Your task to perform on an android device: change timer sound Image 0: 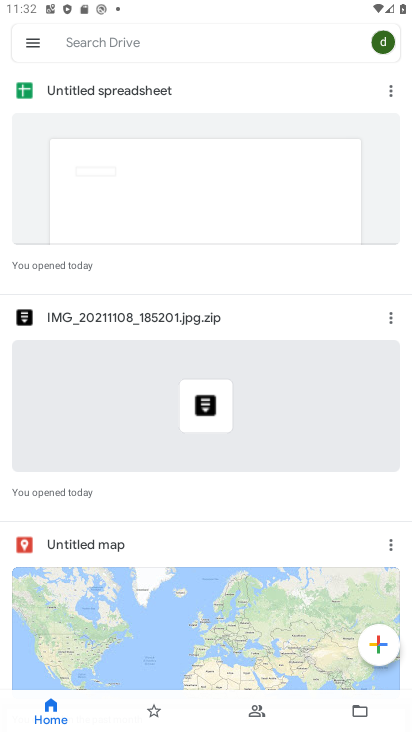
Step 0: press home button
Your task to perform on an android device: change timer sound Image 1: 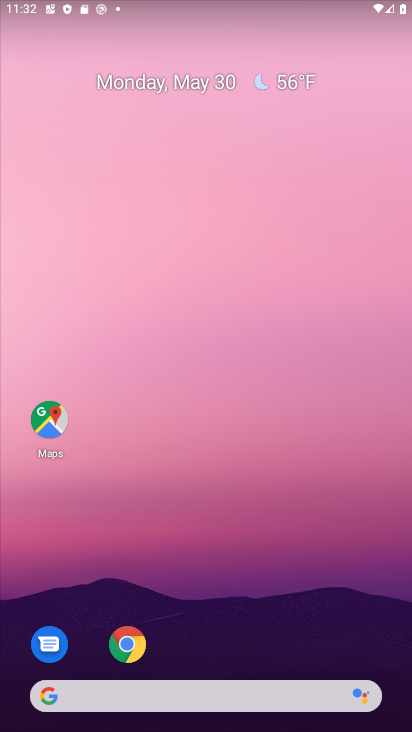
Step 1: drag from (205, 671) to (207, 2)
Your task to perform on an android device: change timer sound Image 2: 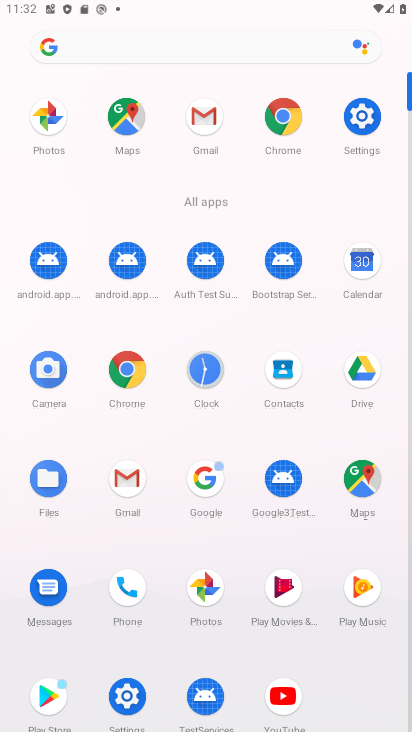
Step 2: click (204, 394)
Your task to perform on an android device: change timer sound Image 3: 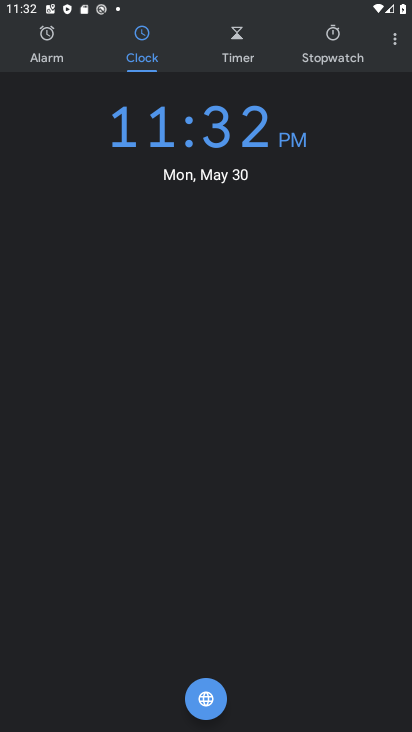
Step 3: click (393, 48)
Your task to perform on an android device: change timer sound Image 4: 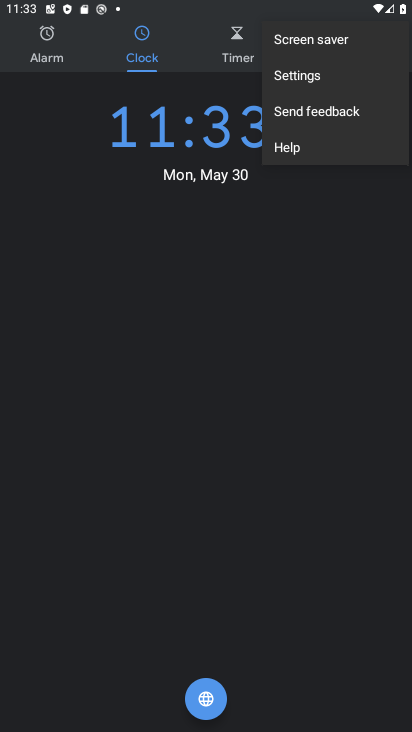
Step 4: click (316, 80)
Your task to perform on an android device: change timer sound Image 5: 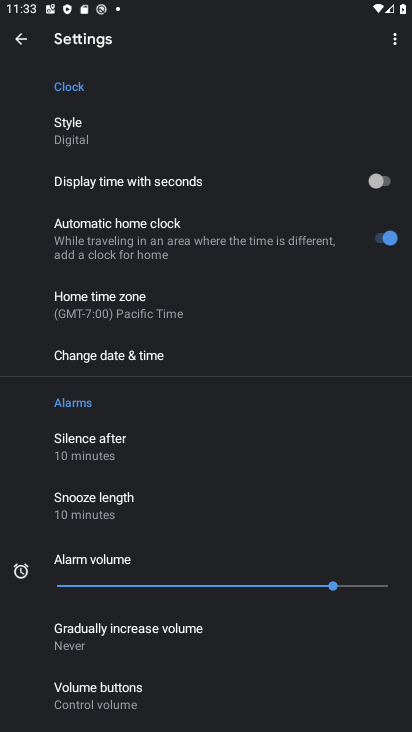
Step 5: drag from (123, 627) to (178, 322)
Your task to perform on an android device: change timer sound Image 6: 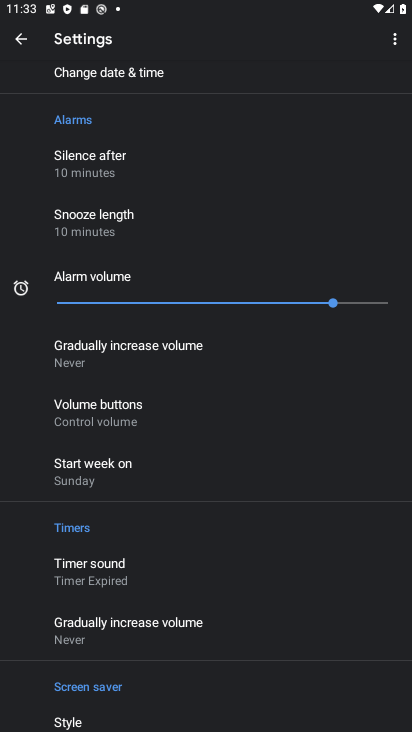
Step 6: drag from (144, 526) to (146, 375)
Your task to perform on an android device: change timer sound Image 7: 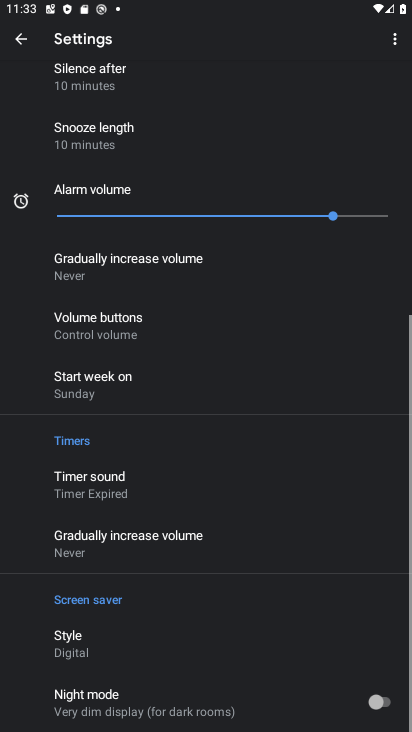
Step 7: click (91, 579)
Your task to perform on an android device: change timer sound Image 8: 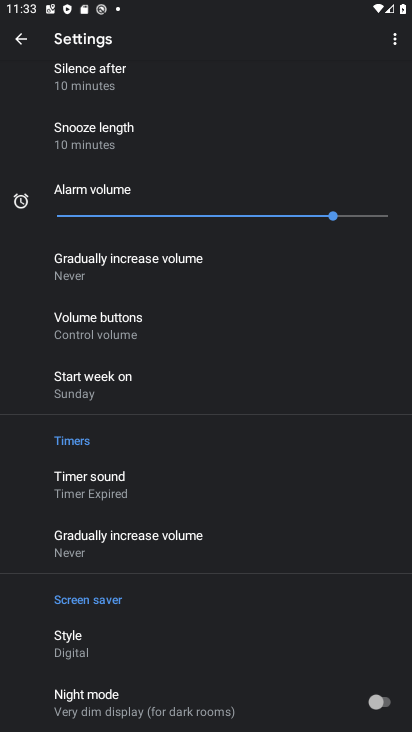
Step 8: click (85, 497)
Your task to perform on an android device: change timer sound Image 9: 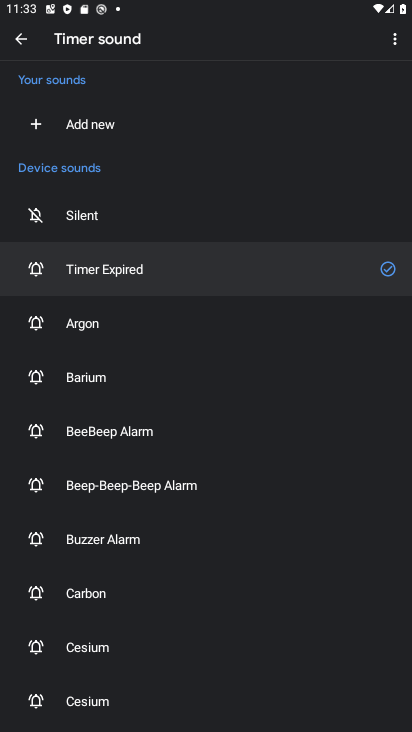
Step 9: click (85, 382)
Your task to perform on an android device: change timer sound Image 10: 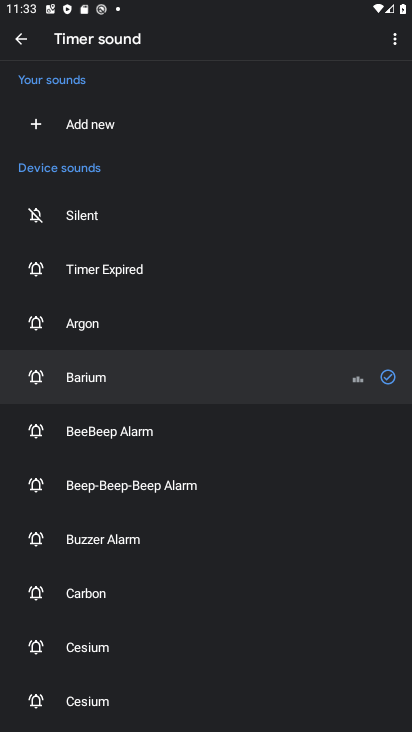
Step 10: task complete